Your task to perform on an android device: turn off location Image 0: 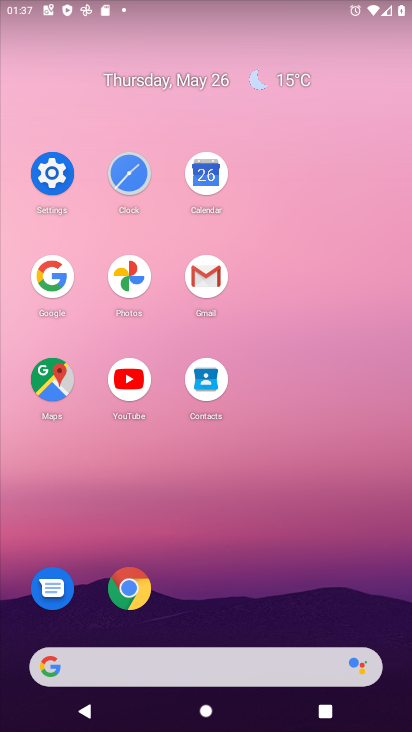
Step 0: click (62, 170)
Your task to perform on an android device: turn off location Image 1: 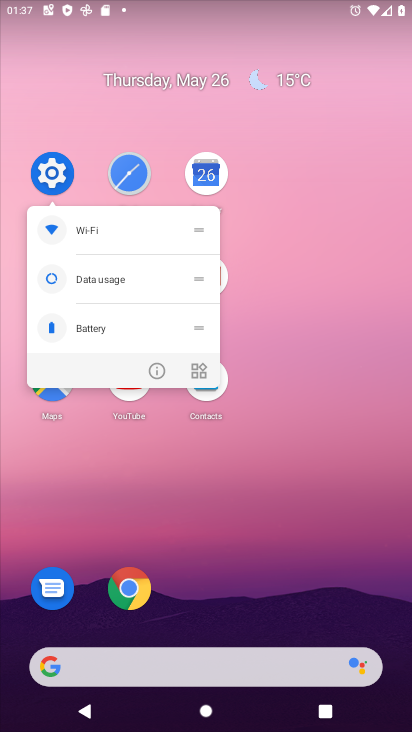
Step 1: click (53, 163)
Your task to perform on an android device: turn off location Image 2: 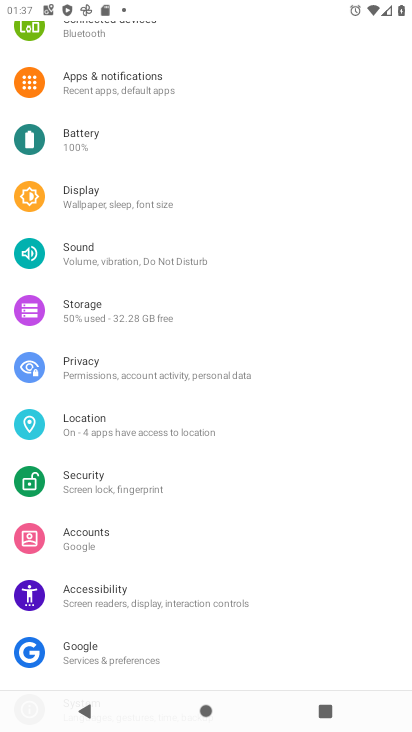
Step 2: click (141, 414)
Your task to perform on an android device: turn off location Image 3: 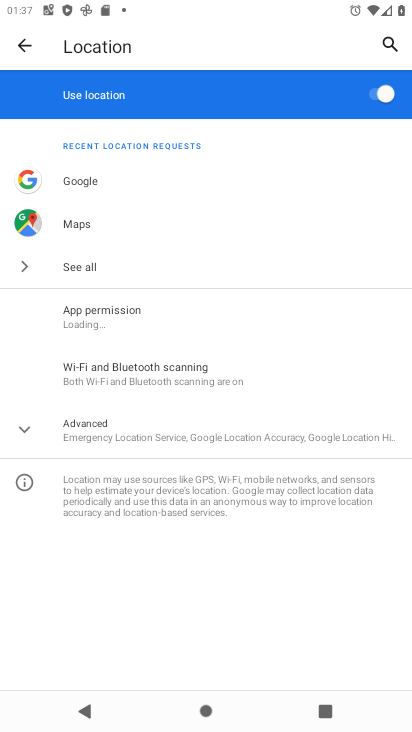
Step 3: click (359, 84)
Your task to perform on an android device: turn off location Image 4: 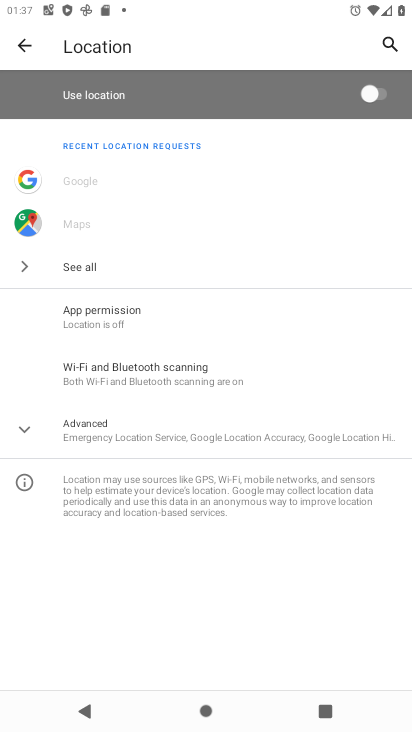
Step 4: task complete